Your task to perform on an android device: Open Amazon Image 0: 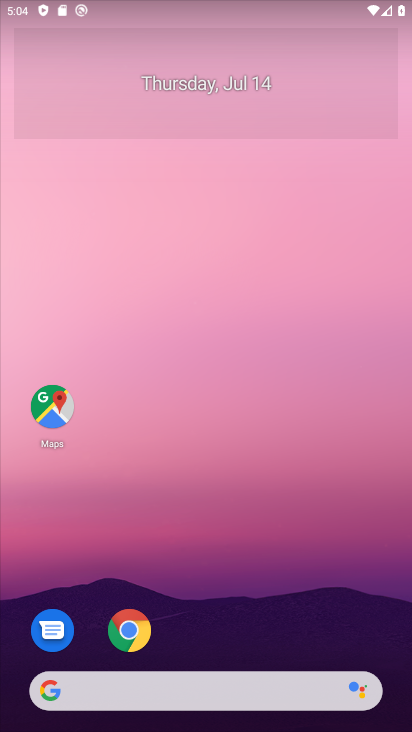
Step 0: press home button
Your task to perform on an android device: Open Amazon Image 1: 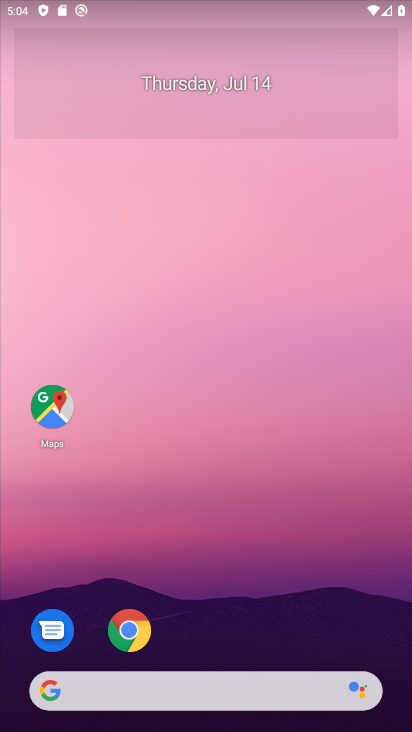
Step 1: click (45, 689)
Your task to perform on an android device: Open Amazon Image 2: 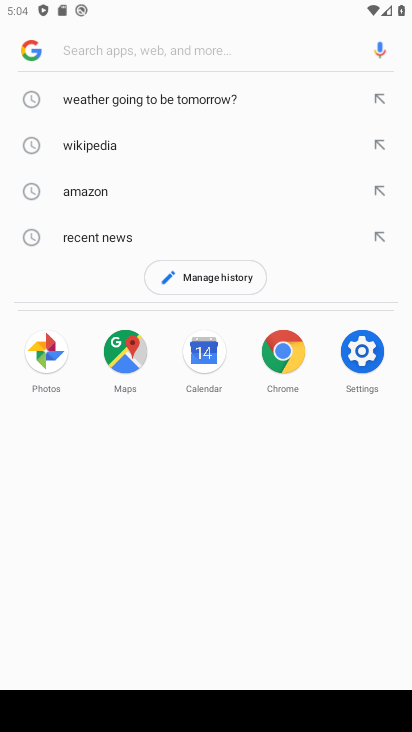
Step 2: click (85, 190)
Your task to perform on an android device: Open Amazon Image 3: 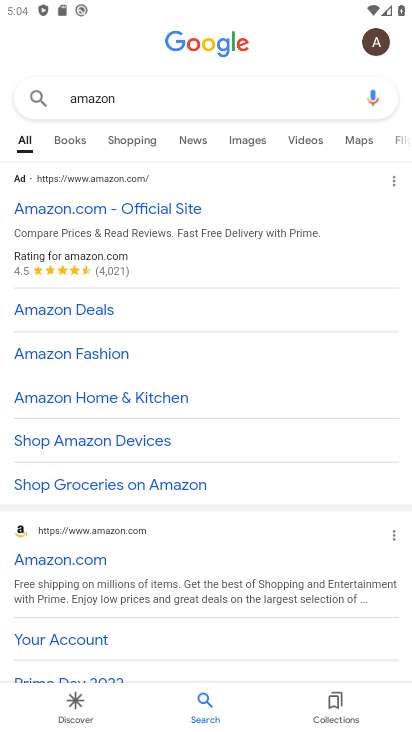
Step 3: click (86, 212)
Your task to perform on an android device: Open Amazon Image 4: 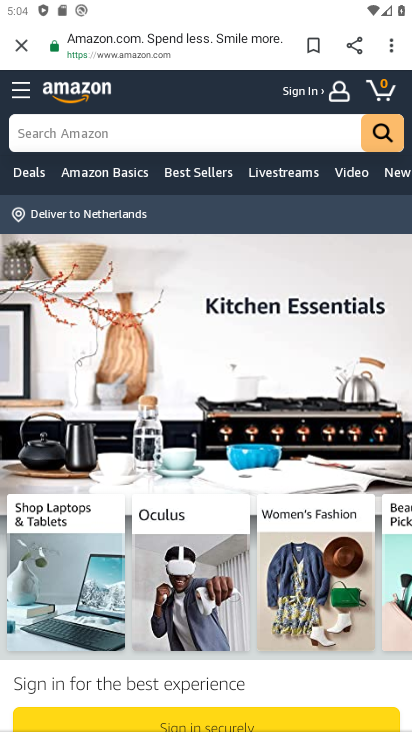
Step 4: task complete